Your task to perform on an android device: change timer sound Image 0: 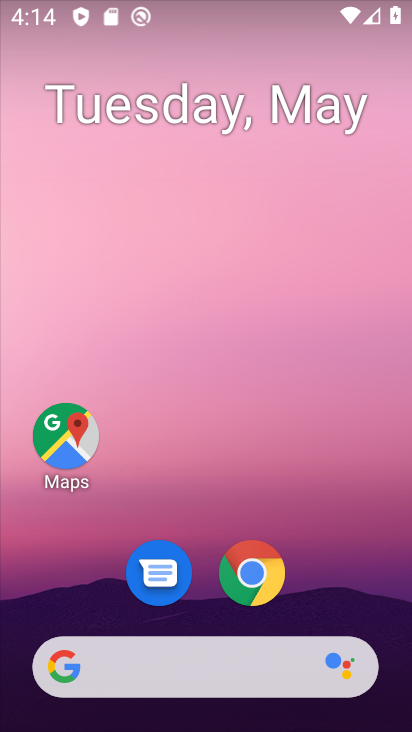
Step 0: drag from (346, 538) to (253, 85)
Your task to perform on an android device: change timer sound Image 1: 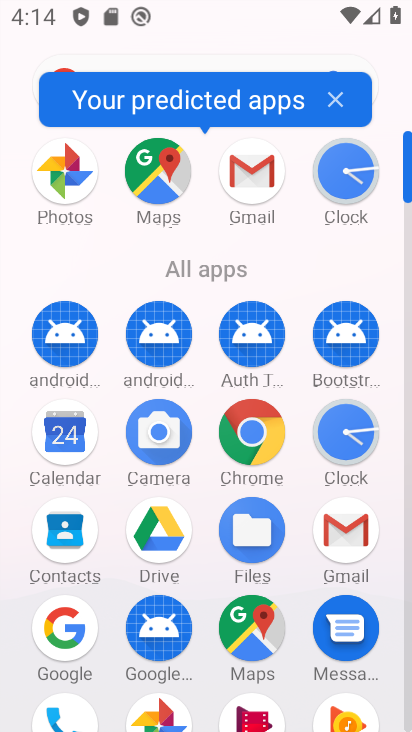
Step 1: click (352, 428)
Your task to perform on an android device: change timer sound Image 2: 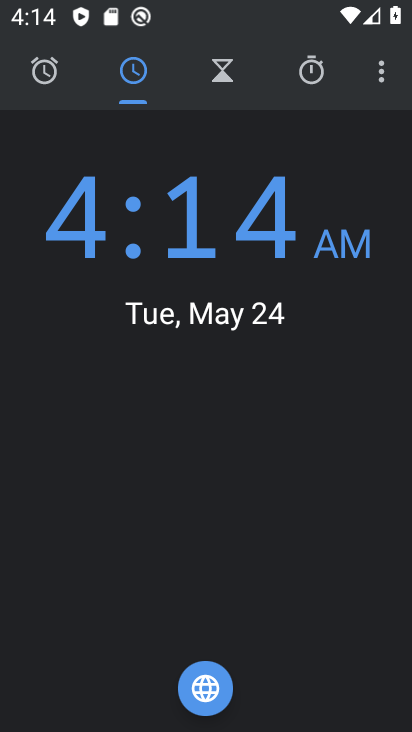
Step 2: click (388, 63)
Your task to perform on an android device: change timer sound Image 3: 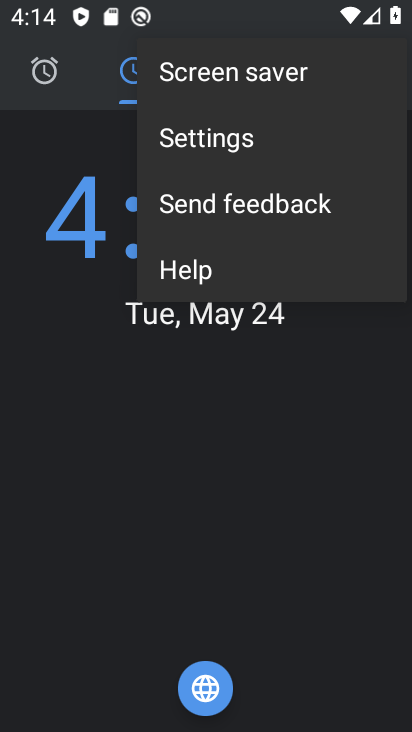
Step 3: click (234, 142)
Your task to perform on an android device: change timer sound Image 4: 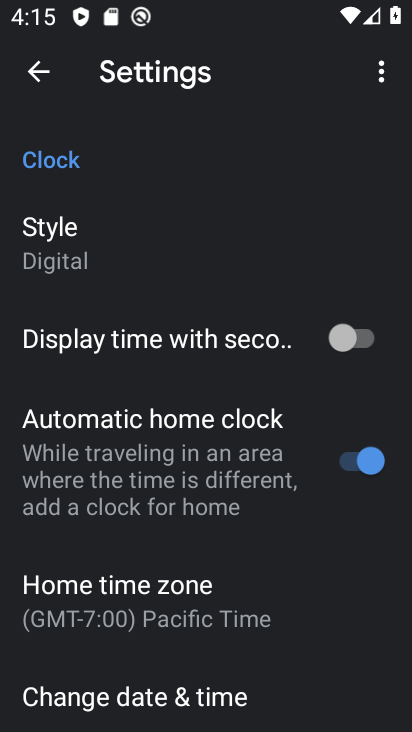
Step 4: drag from (203, 520) to (274, 122)
Your task to perform on an android device: change timer sound Image 5: 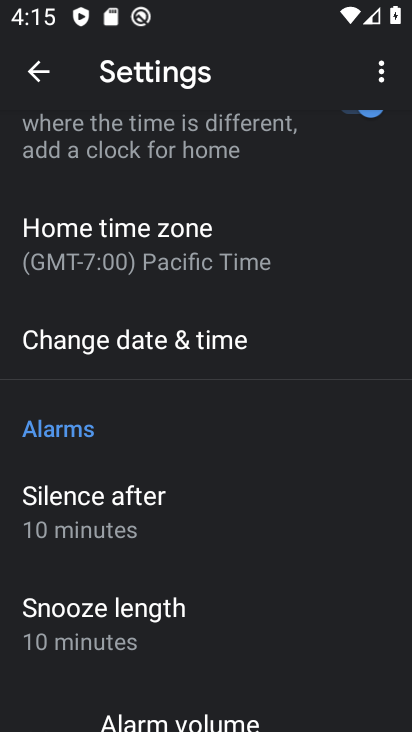
Step 5: drag from (195, 449) to (240, 161)
Your task to perform on an android device: change timer sound Image 6: 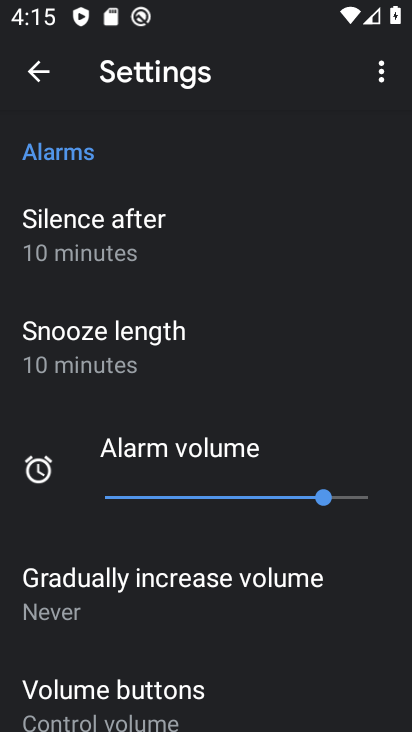
Step 6: drag from (210, 553) to (339, 205)
Your task to perform on an android device: change timer sound Image 7: 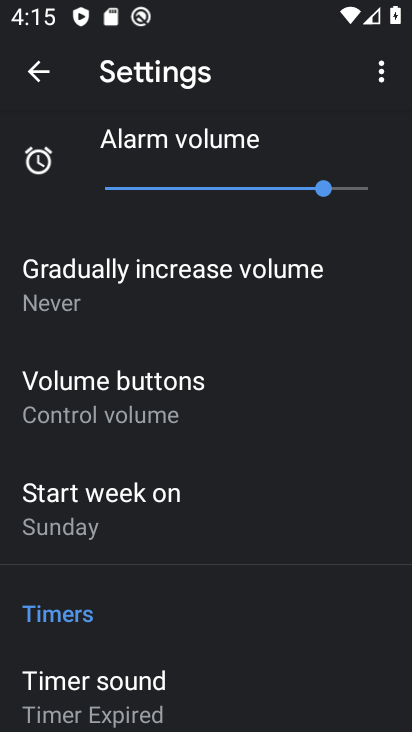
Step 7: drag from (236, 462) to (267, 135)
Your task to perform on an android device: change timer sound Image 8: 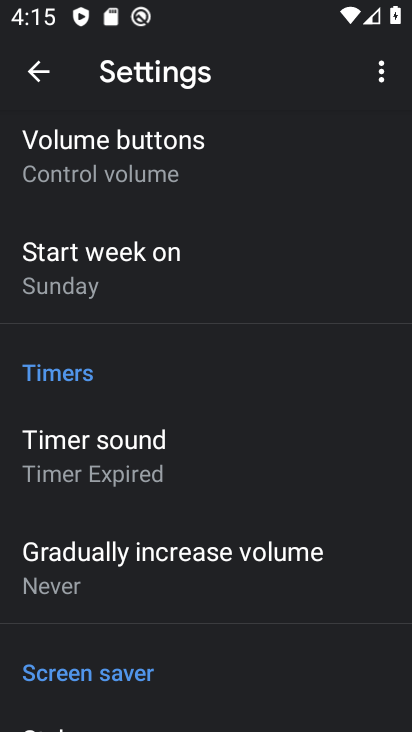
Step 8: click (131, 438)
Your task to perform on an android device: change timer sound Image 9: 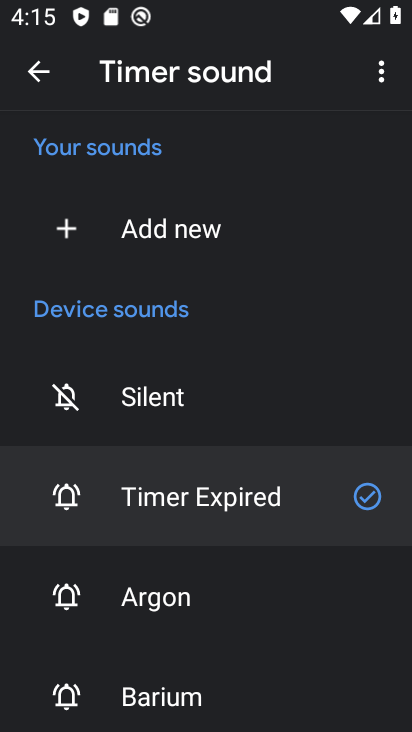
Step 9: click (168, 552)
Your task to perform on an android device: change timer sound Image 10: 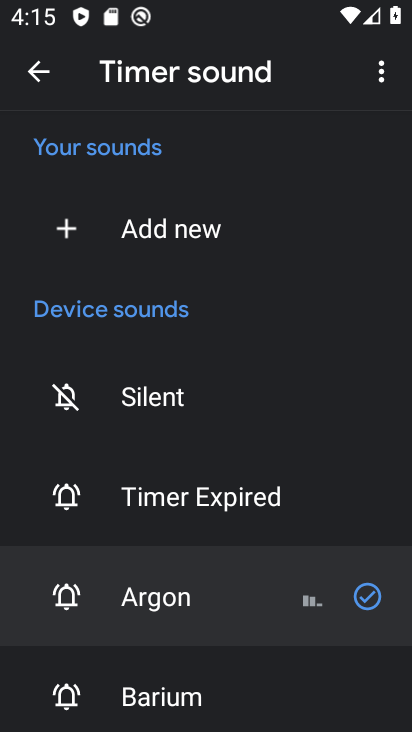
Step 10: task complete